Your task to perform on an android device: Go to settings Image 0: 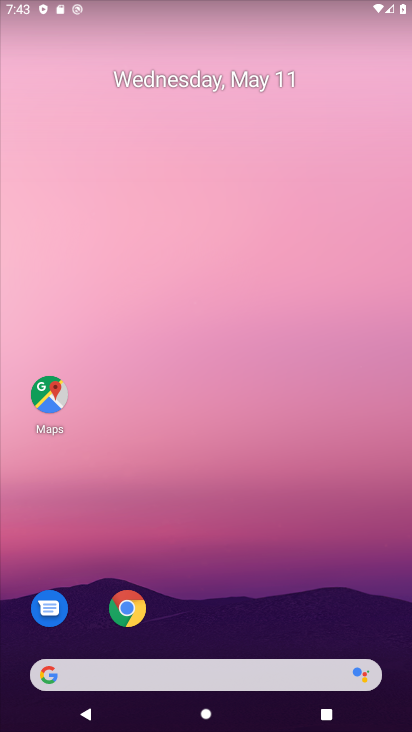
Step 0: click (235, 35)
Your task to perform on an android device: Go to settings Image 1: 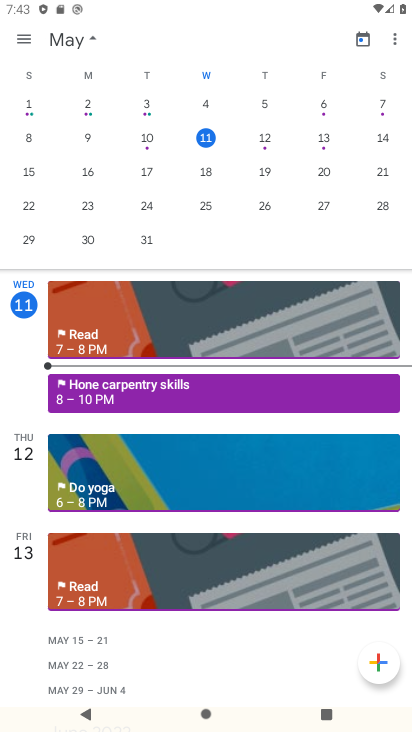
Step 1: press home button
Your task to perform on an android device: Go to settings Image 2: 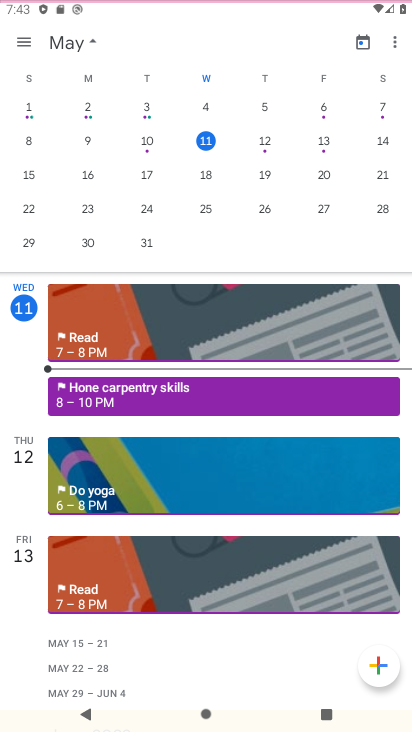
Step 2: press home button
Your task to perform on an android device: Go to settings Image 3: 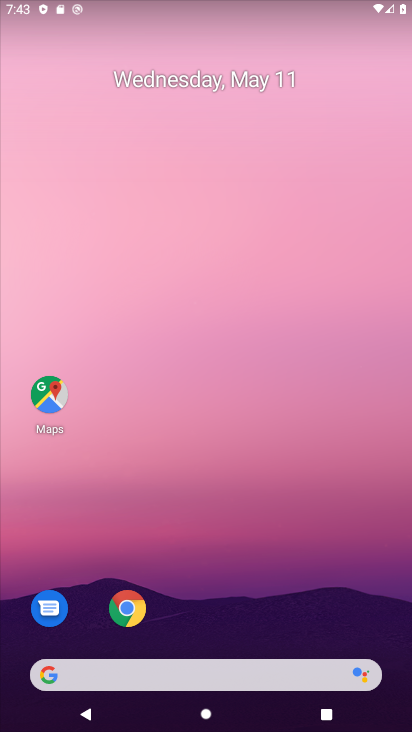
Step 3: drag from (230, 598) to (264, 19)
Your task to perform on an android device: Go to settings Image 4: 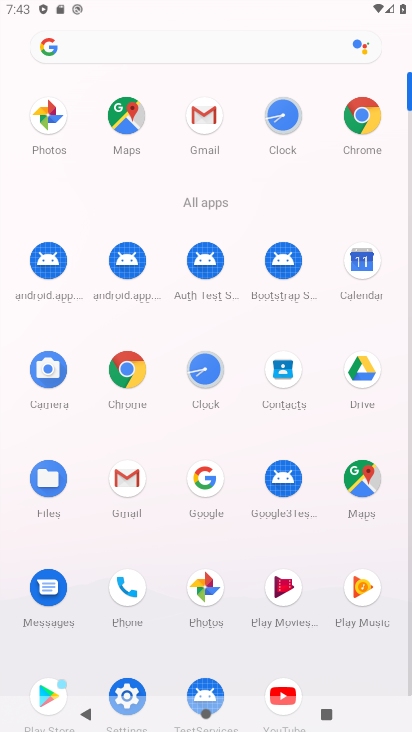
Step 4: click (115, 682)
Your task to perform on an android device: Go to settings Image 5: 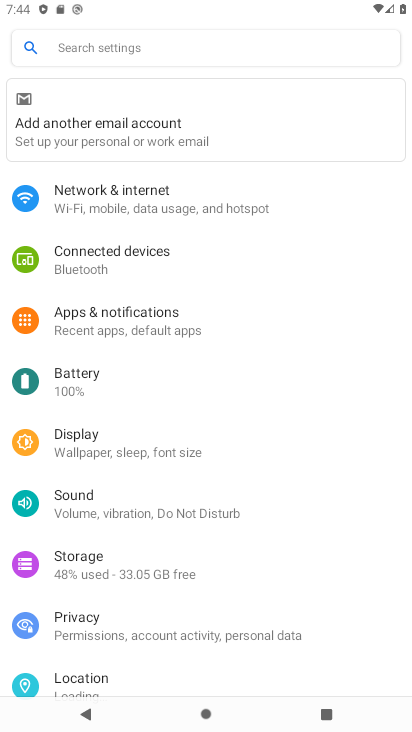
Step 5: task complete